Your task to perform on an android device: check android version Image 0: 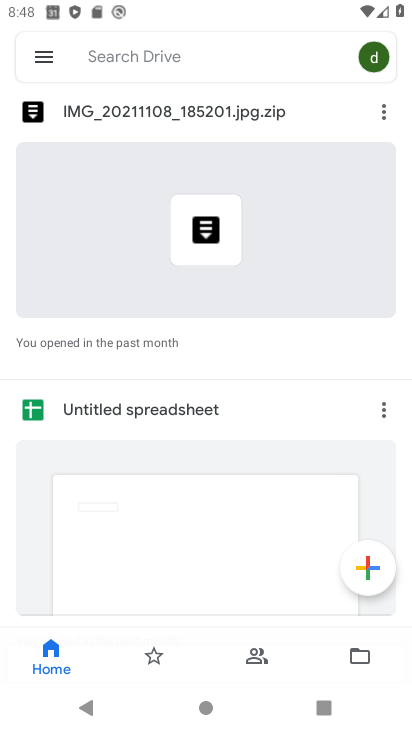
Step 0: press home button
Your task to perform on an android device: check android version Image 1: 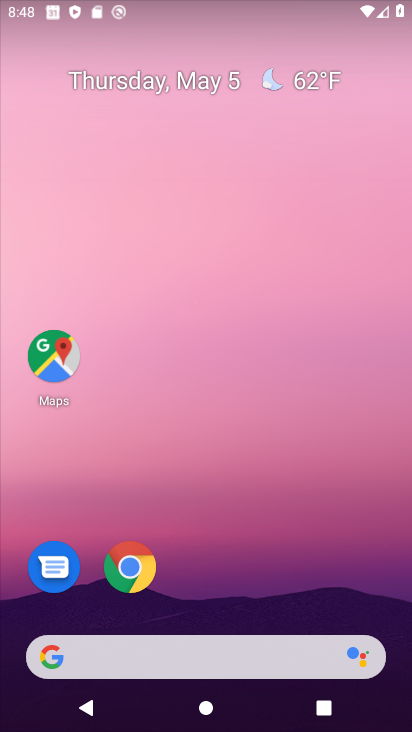
Step 1: drag from (231, 729) to (236, 255)
Your task to perform on an android device: check android version Image 2: 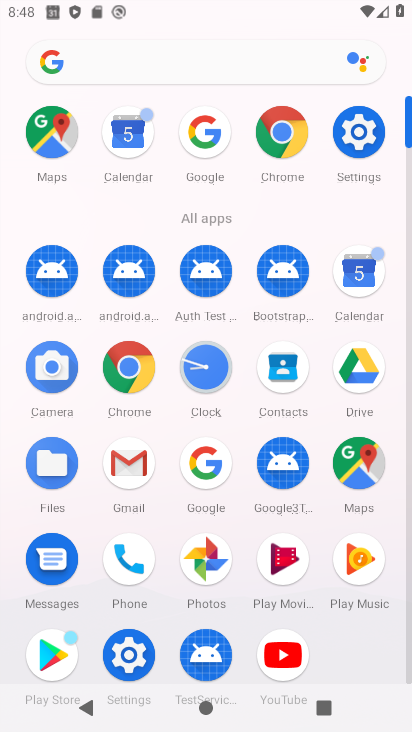
Step 2: click (355, 133)
Your task to perform on an android device: check android version Image 3: 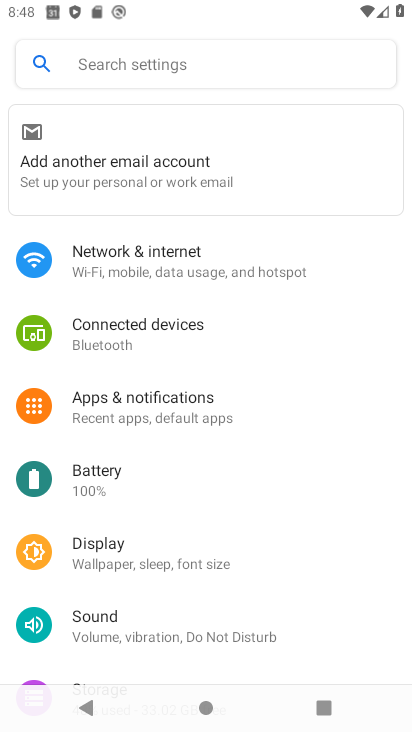
Step 3: drag from (189, 644) to (187, 240)
Your task to perform on an android device: check android version Image 4: 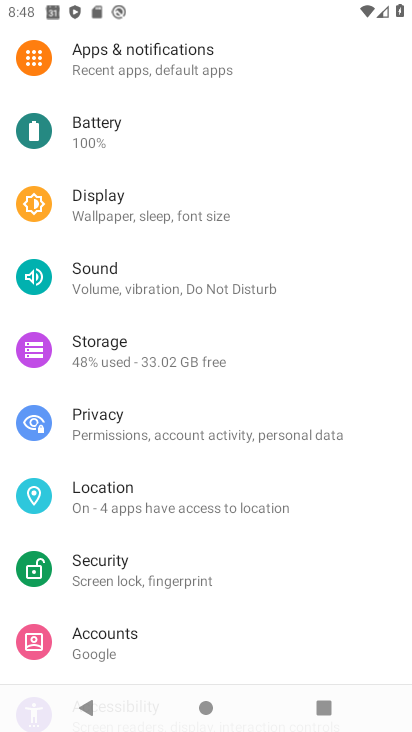
Step 4: drag from (194, 640) to (190, 230)
Your task to perform on an android device: check android version Image 5: 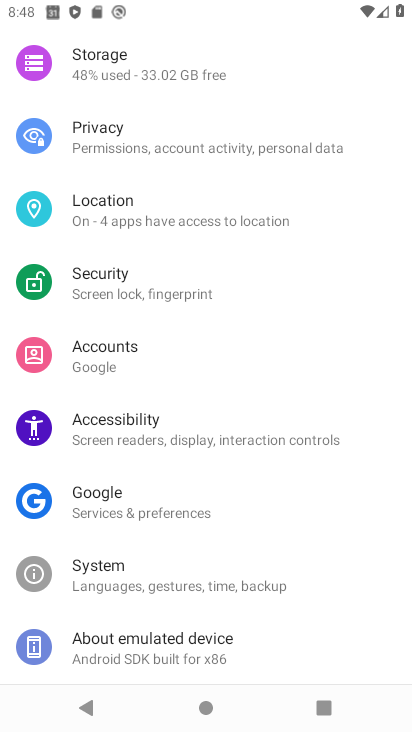
Step 5: click (142, 644)
Your task to perform on an android device: check android version Image 6: 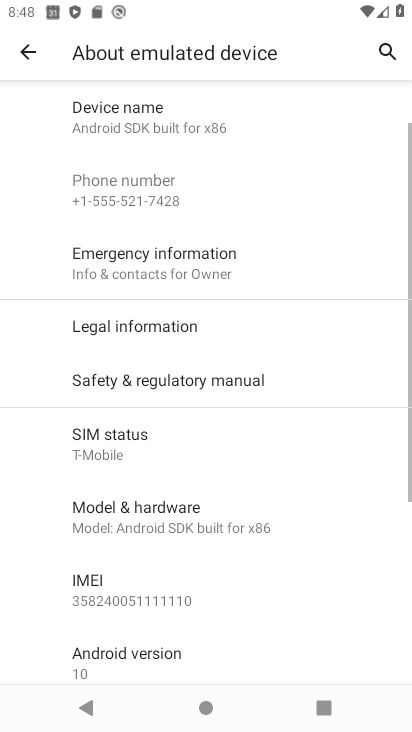
Step 6: click (134, 655)
Your task to perform on an android device: check android version Image 7: 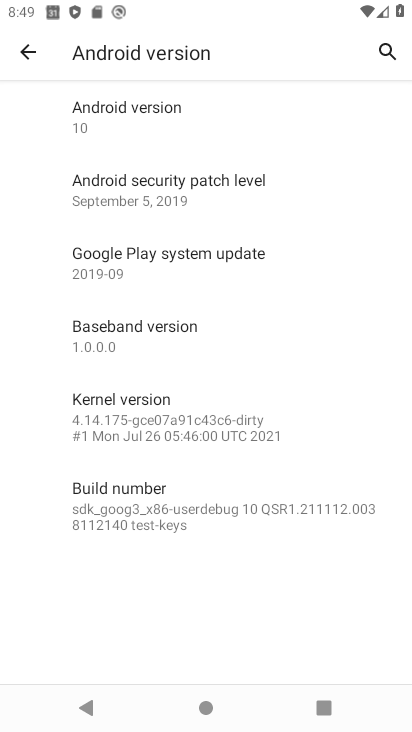
Step 7: task complete